Your task to perform on an android device: Open Maps and search for coffee Image 0: 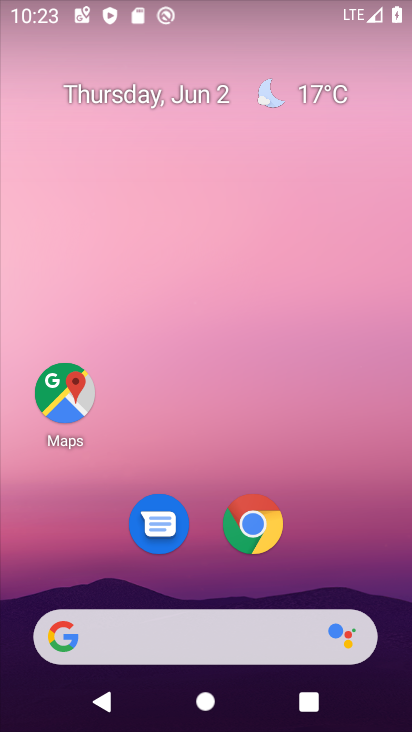
Step 0: click (62, 393)
Your task to perform on an android device: Open Maps and search for coffee Image 1: 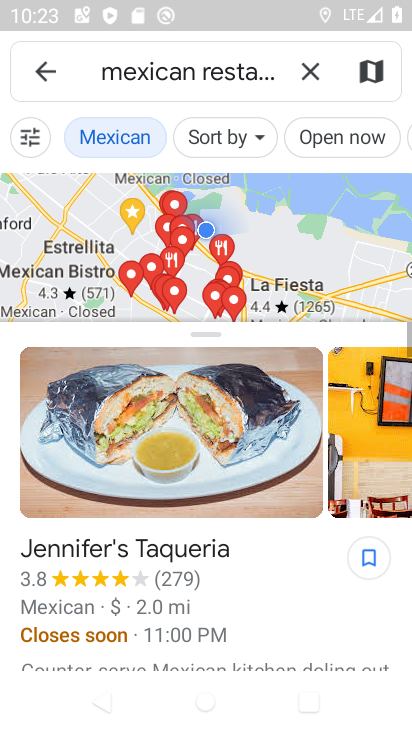
Step 1: click (308, 66)
Your task to perform on an android device: Open Maps and search for coffee Image 2: 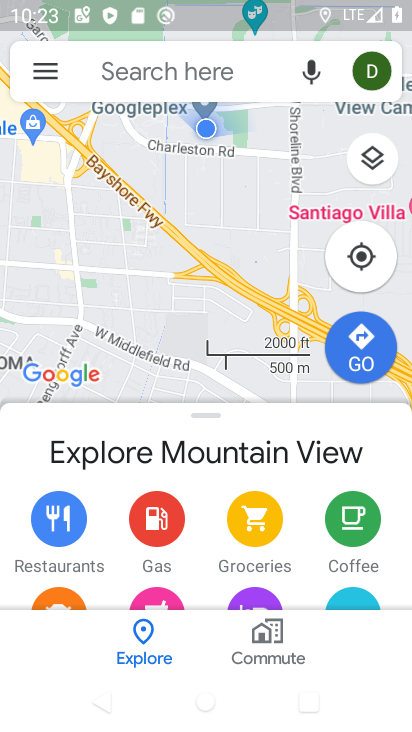
Step 2: click (234, 67)
Your task to perform on an android device: Open Maps and search for coffee Image 3: 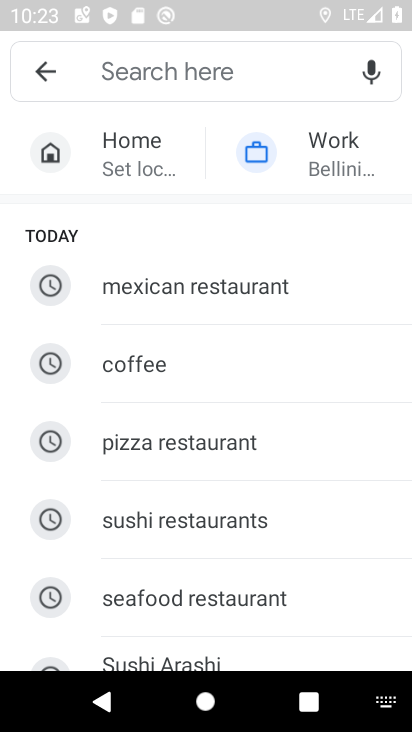
Step 3: click (145, 349)
Your task to perform on an android device: Open Maps and search for coffee Image 4: 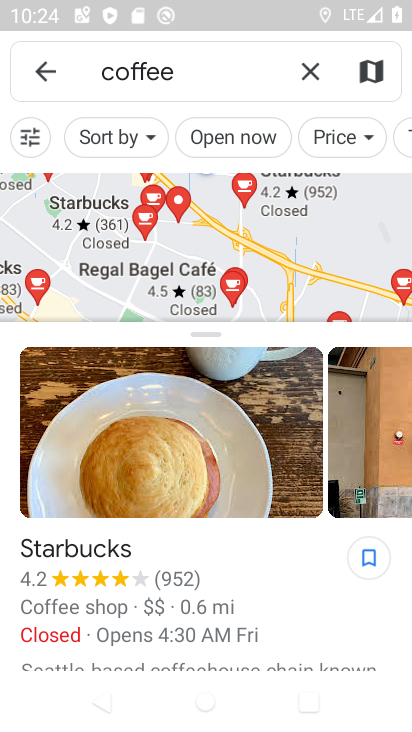
Step 4: task complete